Your task to perform on an android device: Go to wifi settings Image 0: 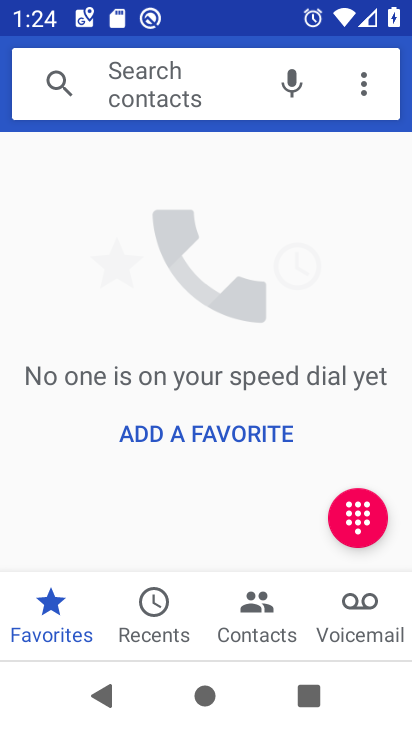
Step 0: press home button
Your task to perform on an android device: Go to wifi settings Image 1: 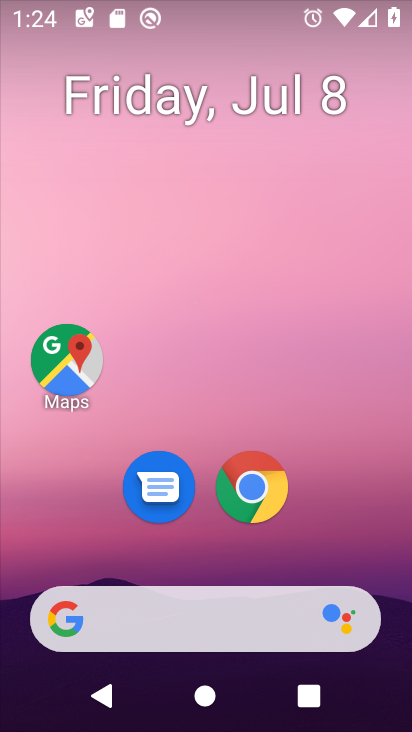
Step 1: drag from (351, 533) to (348, 178)
Your task to perform on an android device: Go to wifi settings Image 2: 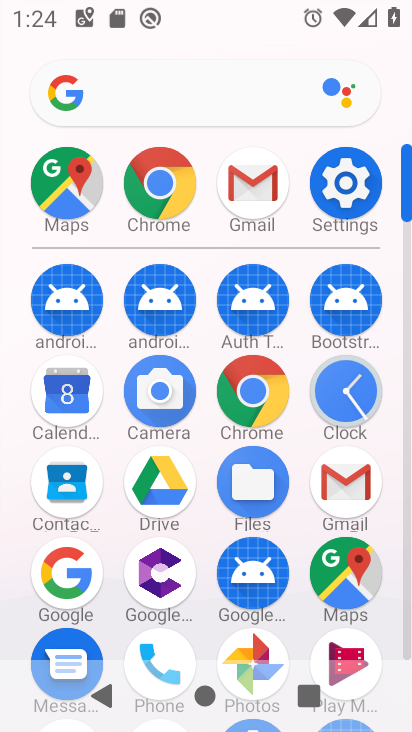
Step 2: click (350, 206)
Your task to perform on an android device: Go to wifi settings Image 3: 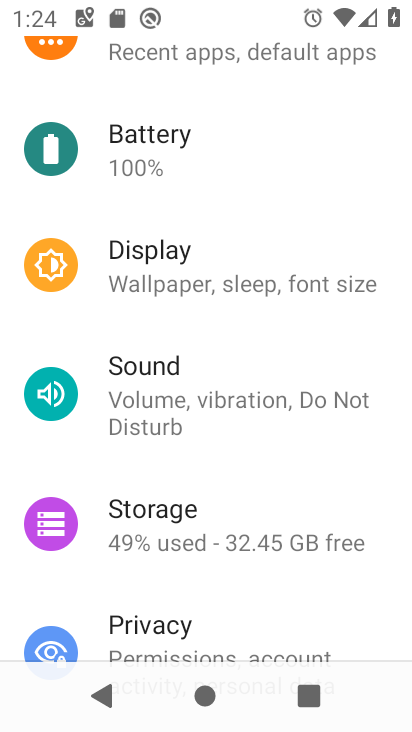
Step 3: drag from (350, 206) to (365, 299)
Your task to perform on an android device: Go to wifi settings Image 4: 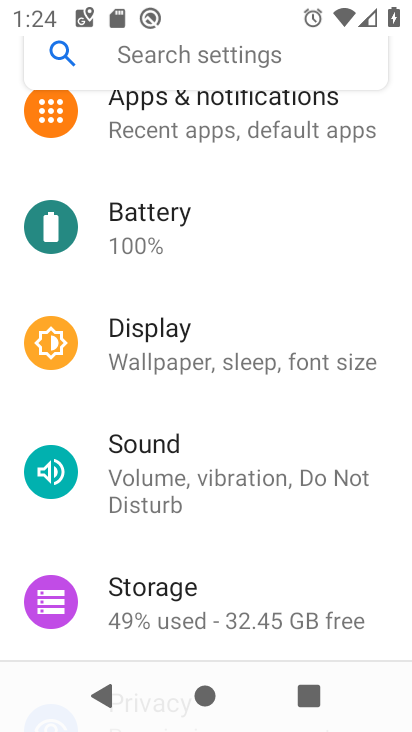
Step 4: drag from (371, 212) to (379, 367)
Your task to perform on an android device: Go to wifi settings Image 5: 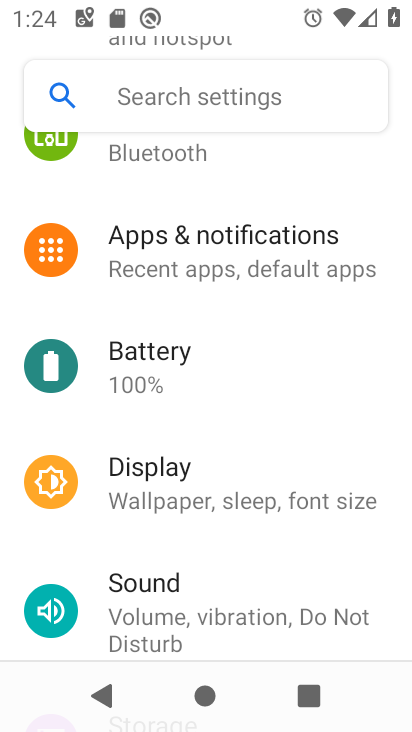
Step 5: drag from (385, 229) to (389, 357)
Your task to perform on an android device: Go to wifi settings Image 6: 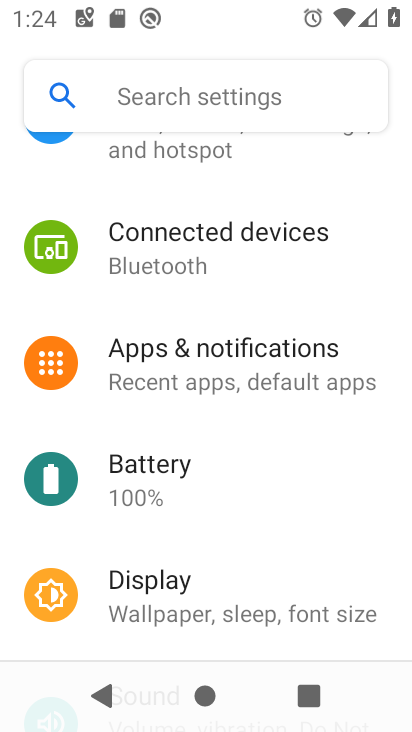
Step 6: drag from (359, 246) to (375, 349)
Your task to perform on an android device: Go to wifi settings Image 7: 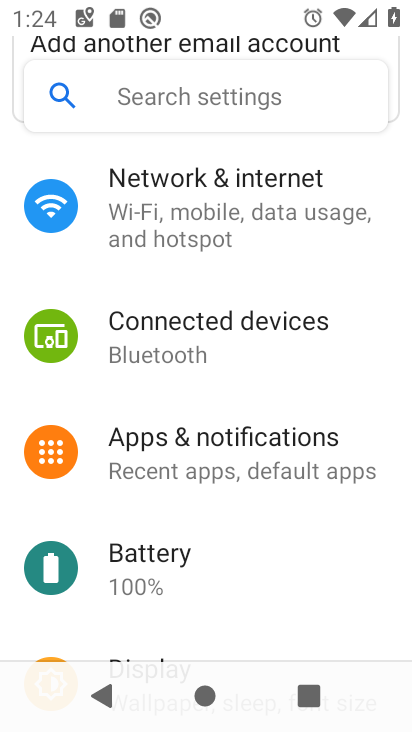
Step 7: drag from (371, 281) to (409, 373)
Your task to perform on an android device: Go to wifi settings Image 8: 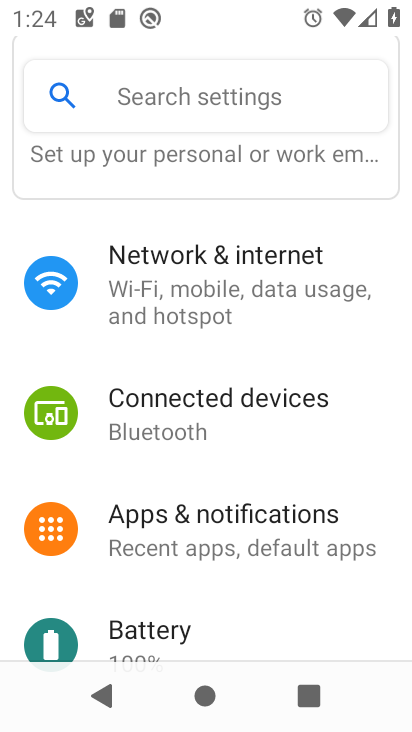
Step 8: drag from (366, 325) to (367, 457)
Your task to perform on an android device: Go to wifi settings Image 9: 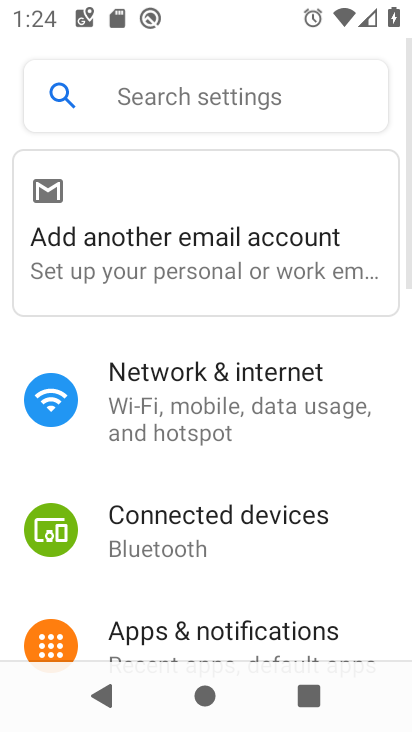
Step 9: click (319, 385)
Your task to perform on an android device: Go to wifi settings Image 10: 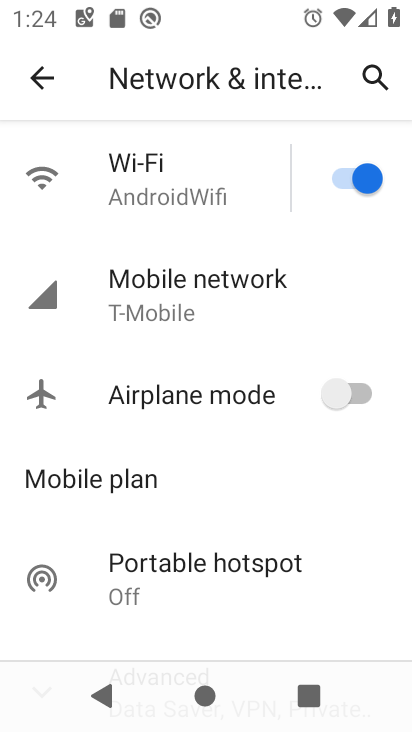
Step 10: click (212, 200)
Your task to perform on an android device: Go to wifi settings Image 11: 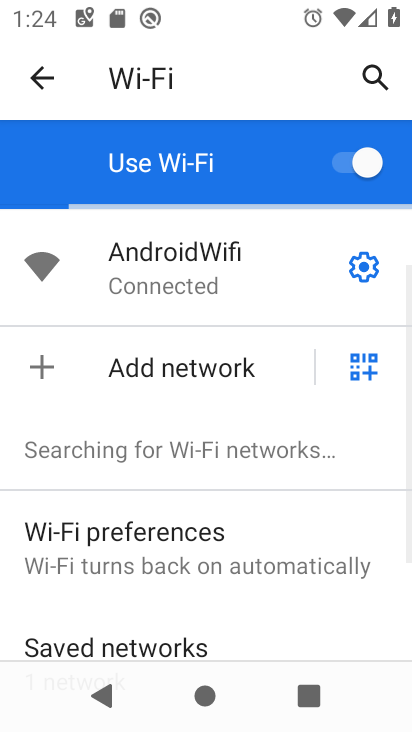
Step 11: task complete